Your task to perform on an android device: choose inbox layout in the gmail app Image 0: 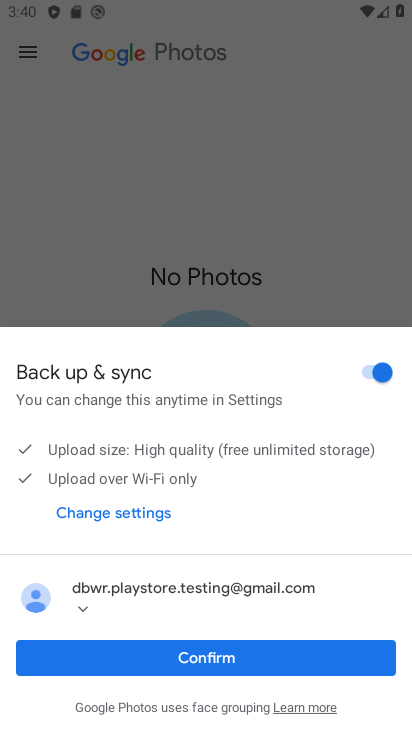
Step 0: press home button
Your task to perform on an android device: choose inbox layout in the gmail app Image 1: 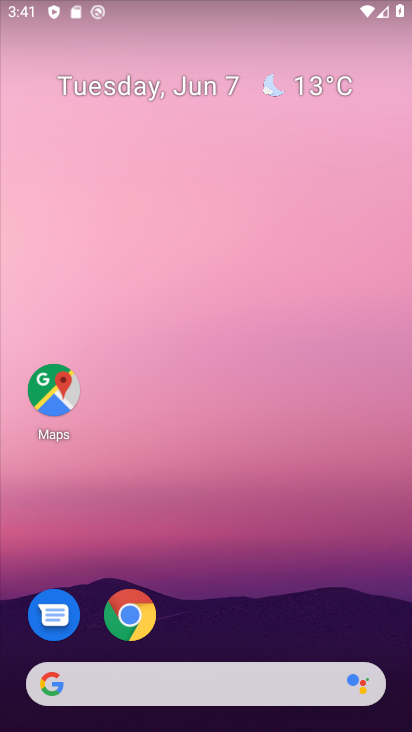
Step 1: drag from (196, 637) to (345, 106)
Your task to perform on an android device: choose inbox layout in the gmail app Image 2: 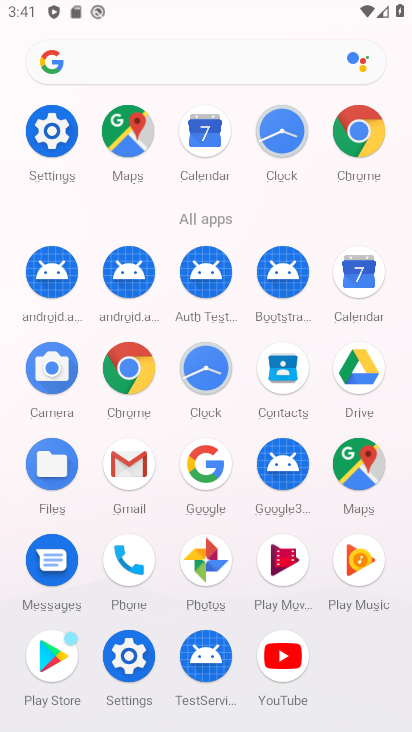
Step 2: click (135, 474)
Your task to perform on an android device: choose inbox layout in the gmail app Image 3: 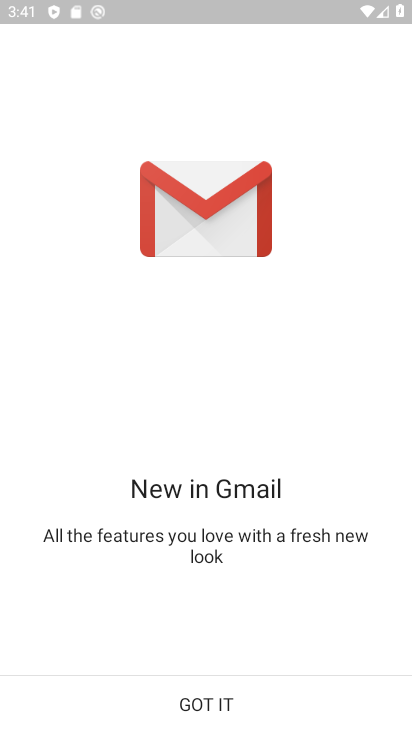
Step 3: click (203, 696)
Your task to perform on an android device: choose inbox layout in the gmail app Image 4: 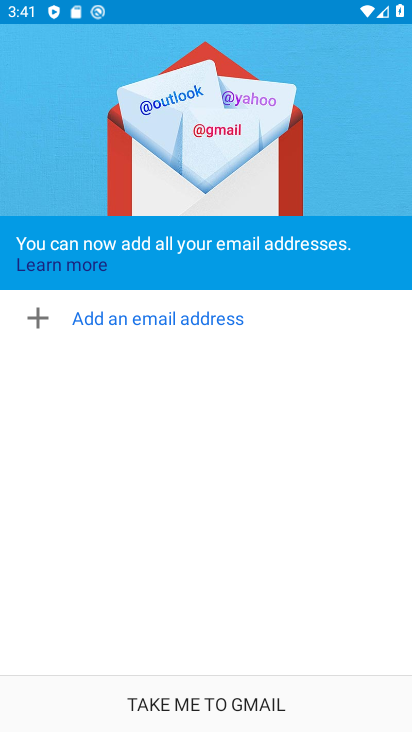
Step 4: click (203, 695)
Your task to perform on an android device: choose inbox layout in the gmail app Image 5: 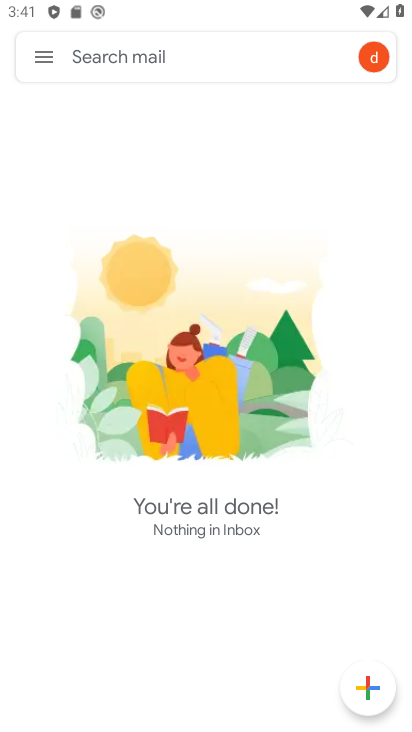
Step 5: click (45, 55)
Your task to perform on an android device: choose inbox layout in the gmail app Image 6: 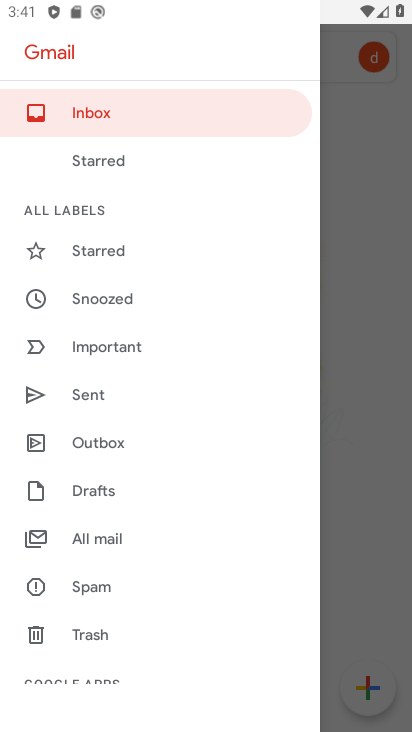
Step 6: drag from (104, 573) to (129, 404)
Your task to perform on an android device: choose inbox layout in the gmail app Image 7: 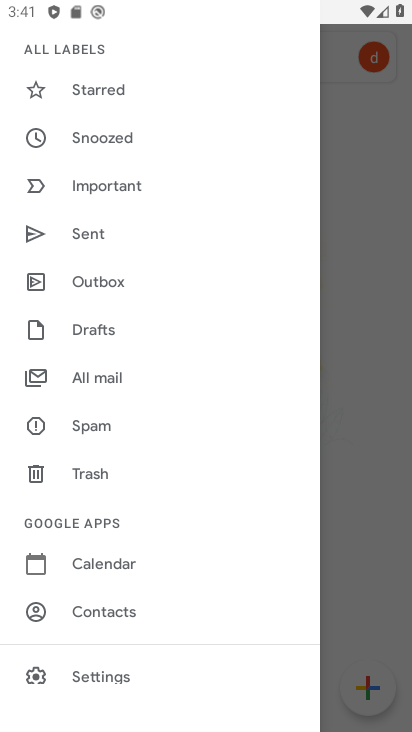
Step 7: drag from (87, 596) to (103, 375)
Your task to perform on an android device: choose inbox layout in the gmail app Image 8: 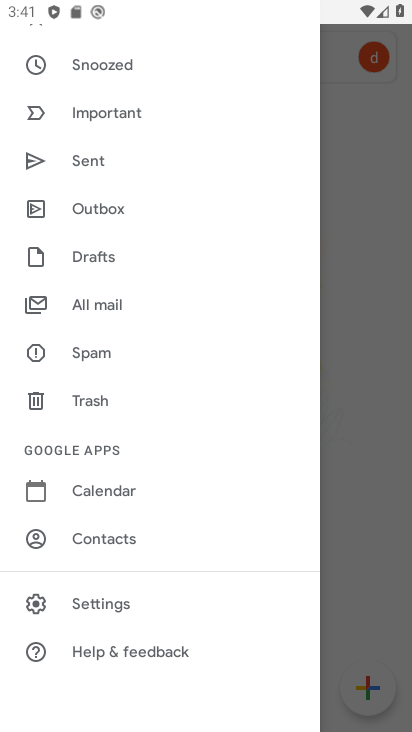
Step 8: click (125, 604)
Your task to perform on an android device: choose inbox layout in the gmail app Image 9: 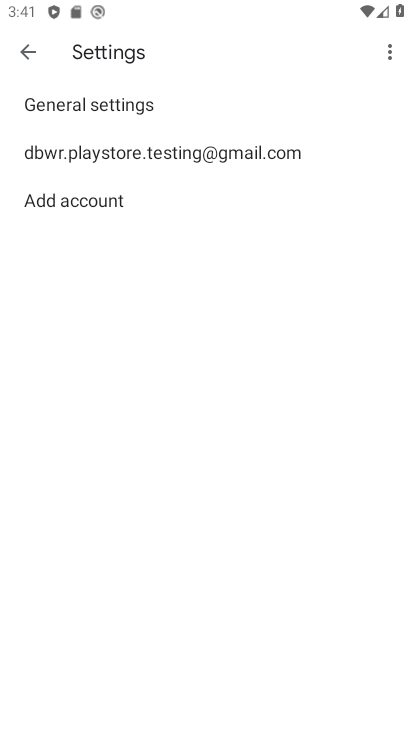
Step 9: click (120, 154)
Your task to perform on an android device: choose inbox layout in the gmail app Image 10: 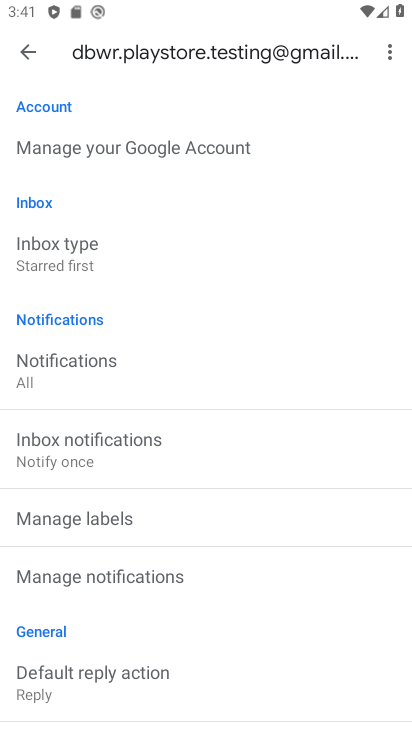
Step 10: click (53, 257)
Your task to perform on an android device: choose inbox layout in the gmail app Image 11: 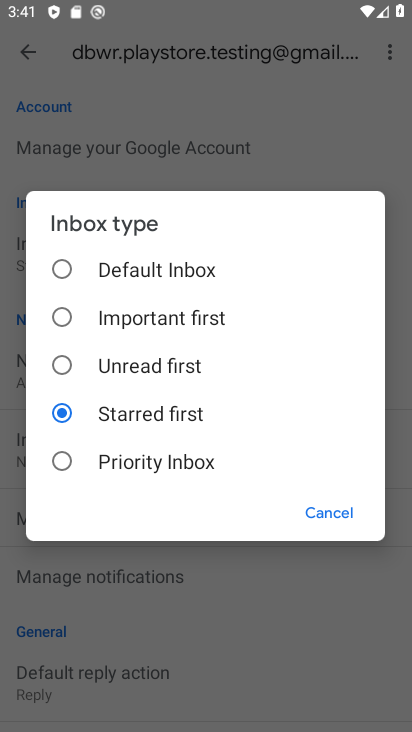
Step 11: click (115, 265)
Your task to perform on an android device: choose inbox layout in the gmail app Image 12: 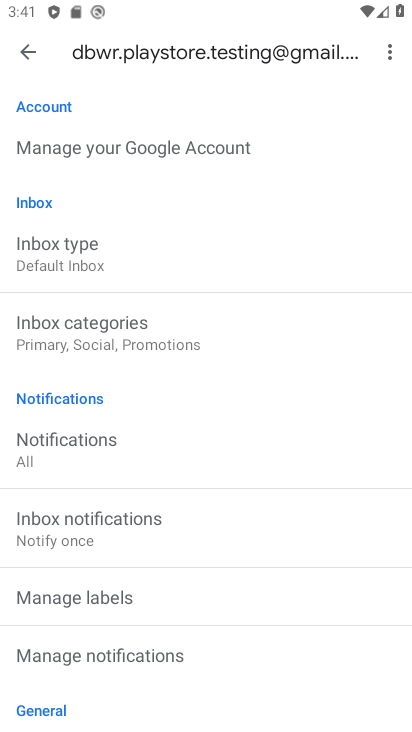
Step 12: task complete